Your task to perform on an android device: Go to eBay Image 0: 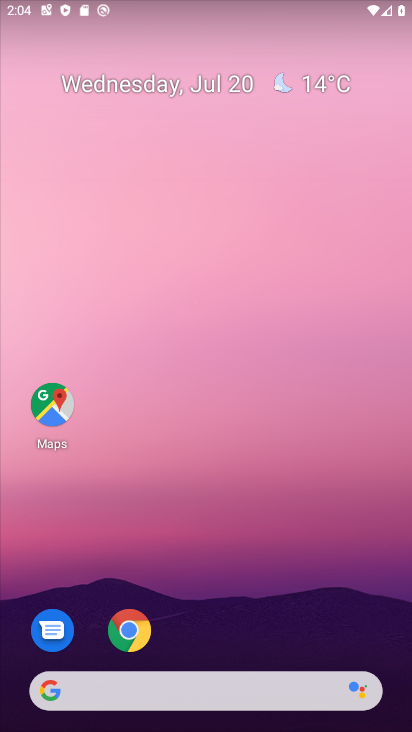
Step 0: press home button
Your task to perform on an android device: Go to eBay Image 1: 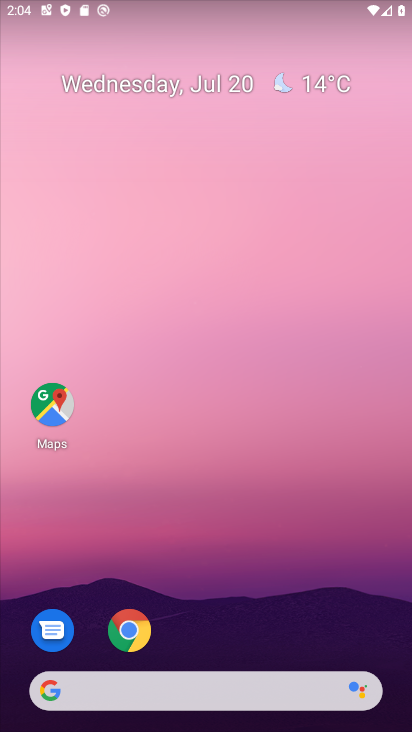
Step 1: click (132, 638)
Your task to perform on an android device: Go to eBay Image 2: 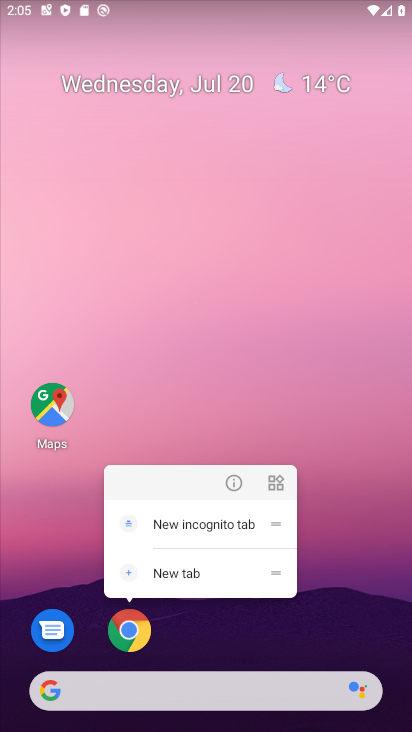
Step 2: click (108, 651)
Your task to perform on an android device: Go to eBay Image 3: 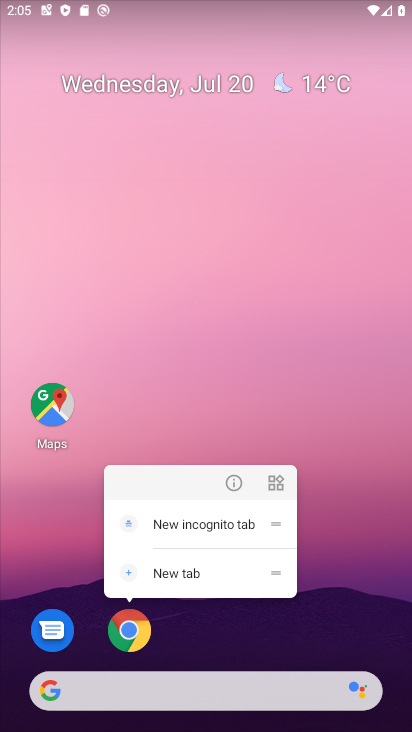
Step 3: click (127, 631)
Your task to perform on an android device: Go to eBay Image 4: 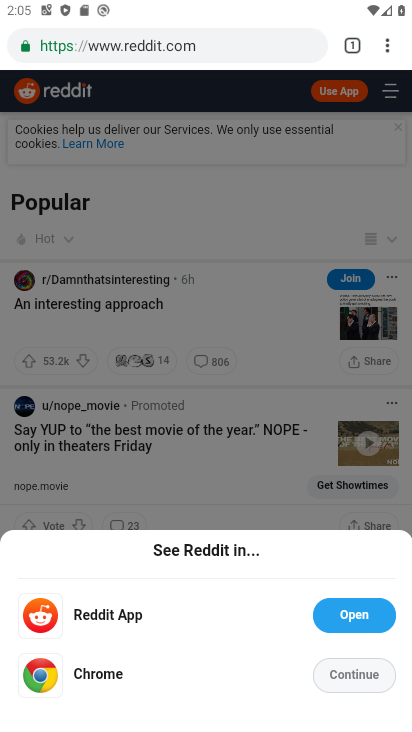
Step 4: click (348, 672)
Your task to perform on an android device: Go to eBay Image 5: 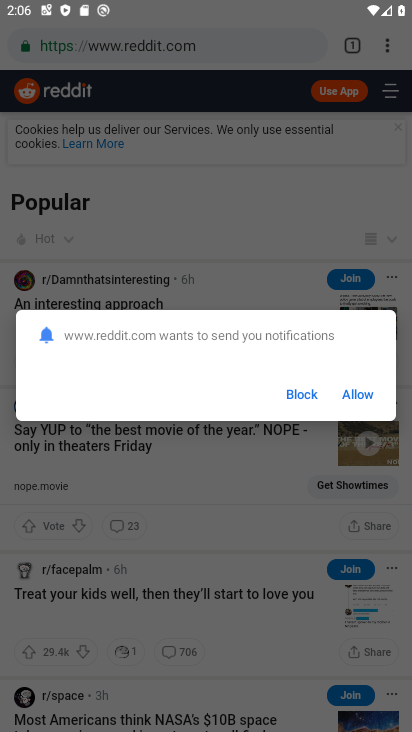
Step 5: click (341, 393)
Your task to perform on an android device: Go to eBay Image 6: 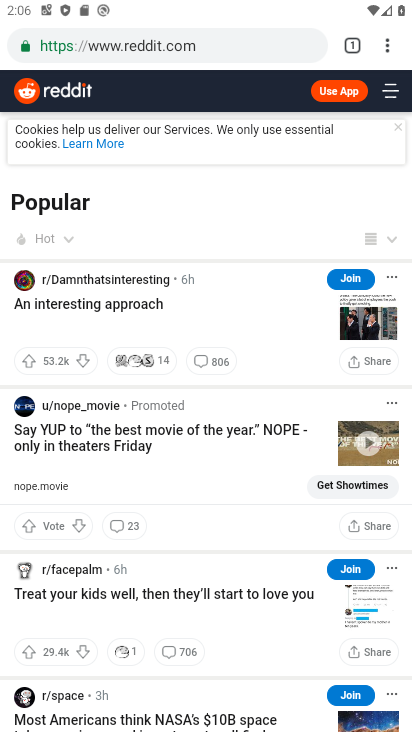
Step 6: click (357, 48)
Your task to perform on an android device: Go to eBay Image 7: 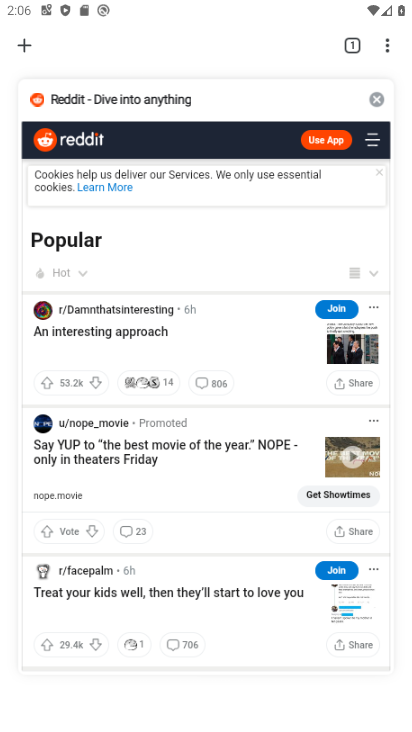
Step 7: click (34, 41)
Your task to perform on an android device: Go to eBay Image 8: 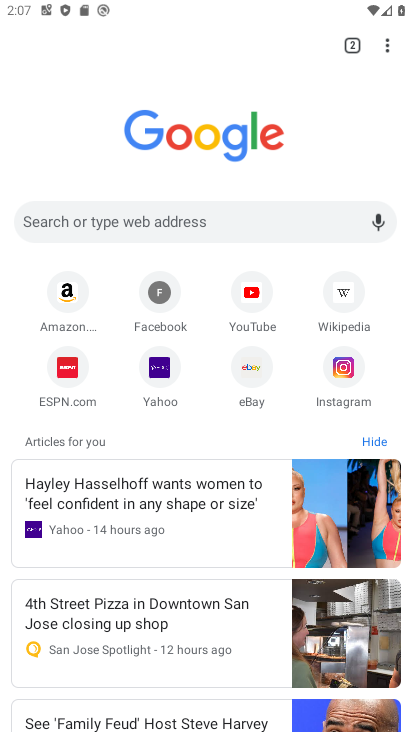
Step 8: click (255, 378)
Your task to perform on an android device: Go to eBay Image 9: 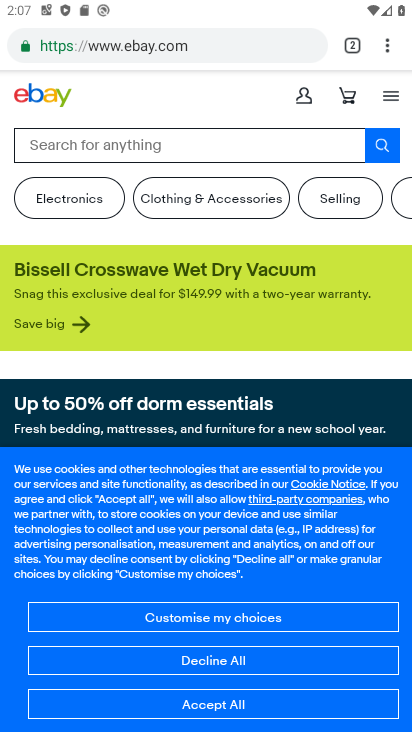
Step 9: task complete